Your task to perform on an android device: check battery use Image 0: 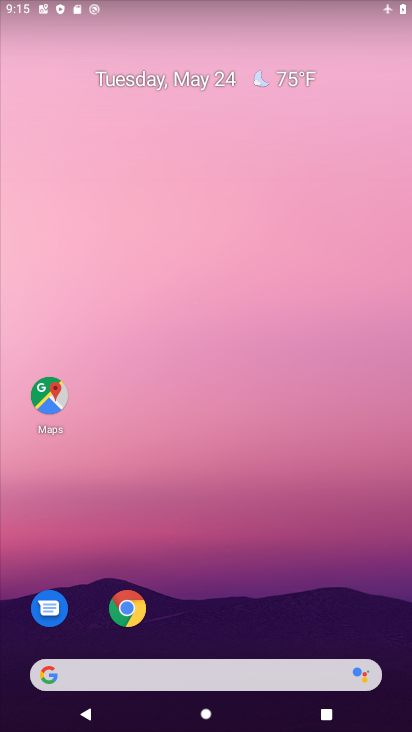
Step 0: drag from (257, 574) to (185, 4)
Your task to perform on an android device: check battery use Image 1: 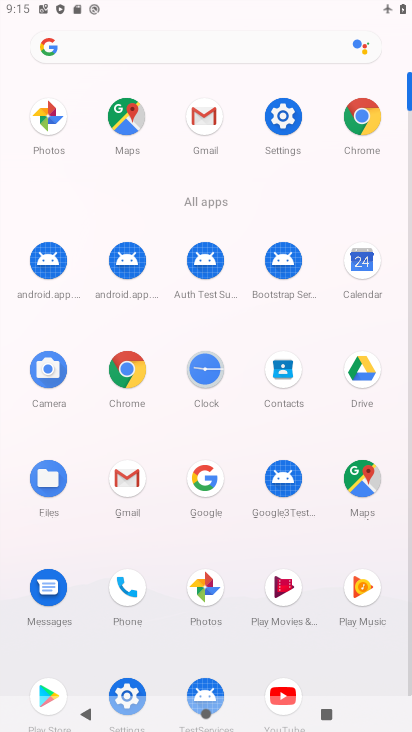
Step 1: click (280, 103)
Your task to perform on an android device: check battery use Image 2: 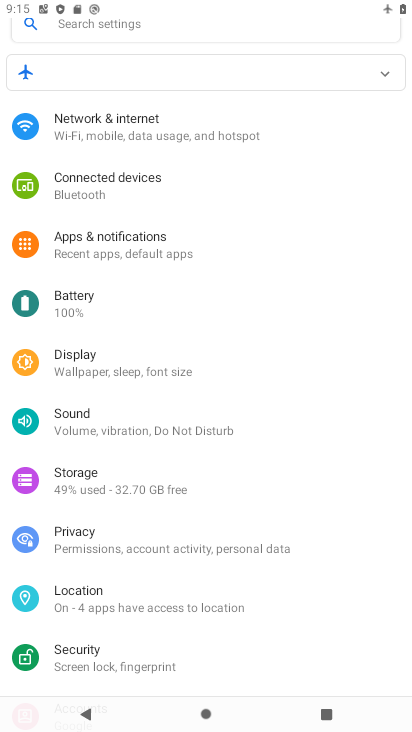
Step 2: click (150, 314)
Your task to perform on an android device: check battery use Image 3: 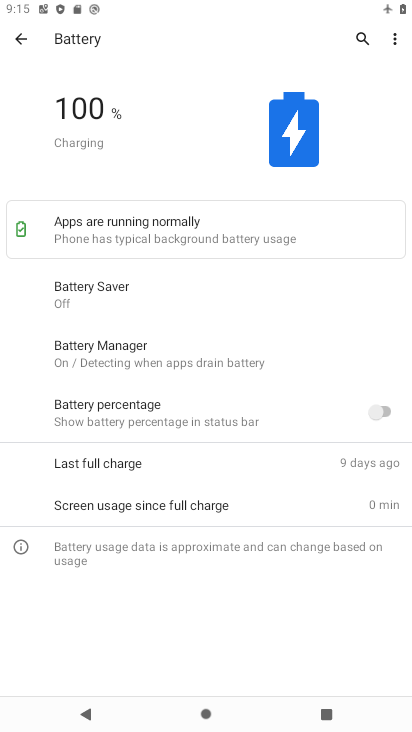
Step 3: click (389, 42)
Your task to perform on an android device: check battery use Image 4: 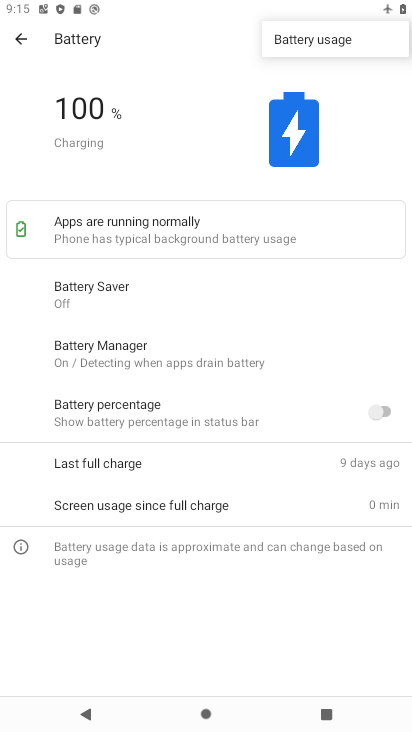
Step 4: click (349, 34)
Your task to perform on an android device: check battery use Image 5: 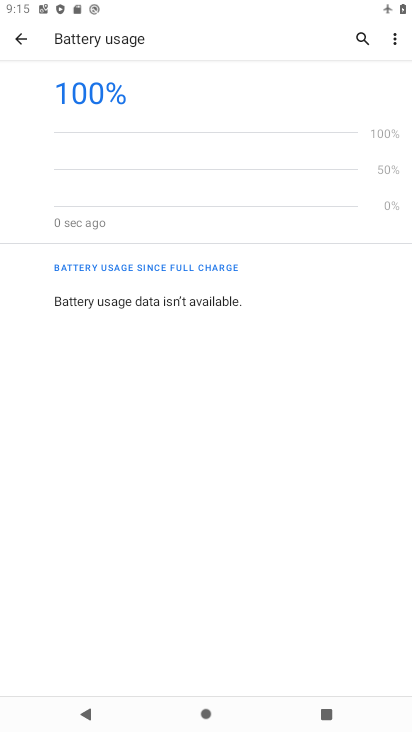
Step 5: task complete